Your task to perform on an android device: Set the phone to "Do not disturb". Image 0: 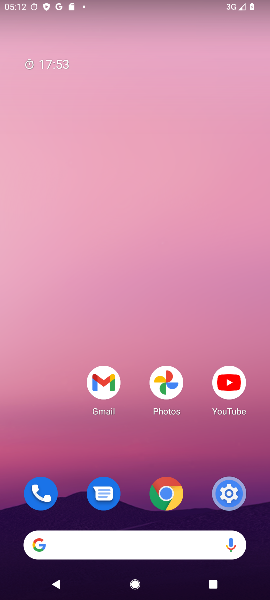
Step 0: press home button
Your task to perform on an android device: Set the phone to "Do not disturb". Image 1: 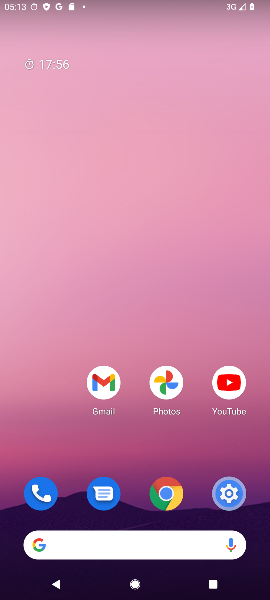
Step 1: drag from (49, 434) to (41, 149)
Your task to perform on an android device: Set the phone to "Do not disturb". Image 2: 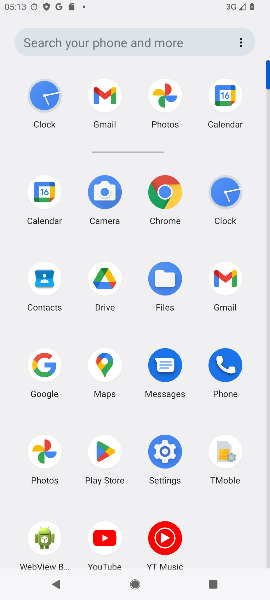
Step 2: click (162, 450)
Your task to perform on an android device: Set the phone to "Do not disturb". Image 3: 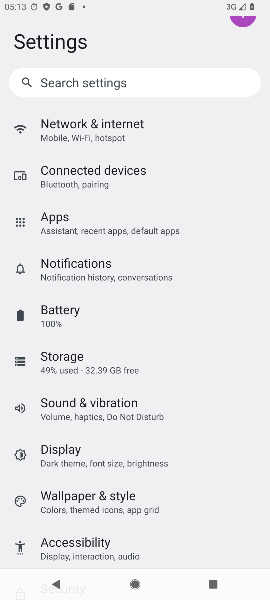
Step 3: drag from (219, 463) to (219, 375)
Your task to perform on an android device: Set the phone to "Do not disturb". Image 4: 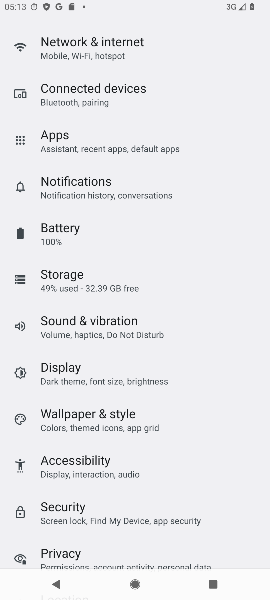
Step 4: drag from (236, 492) to (233, 378)
Your task to perform on an android device: Set the phone to "Do not disturb". Image 5: 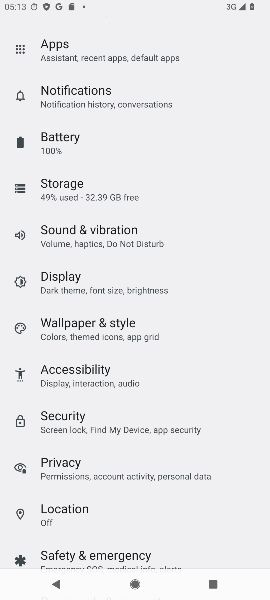
Step 5: drag from (230, 513) to (237, 385)
Your task to perform on an android device: Set the phone to "Do not disturb". Image 6: 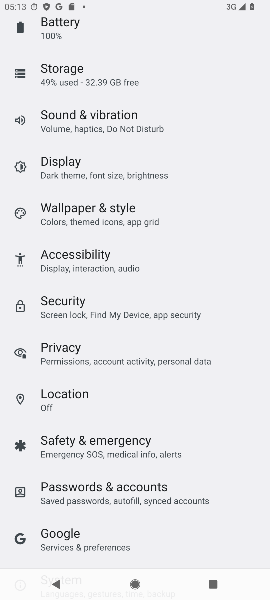
Step 6: drag from (230, 506) to (233, 365)
Your task to perform on an android device: Set the phone to "Do not disturb". Image 7: 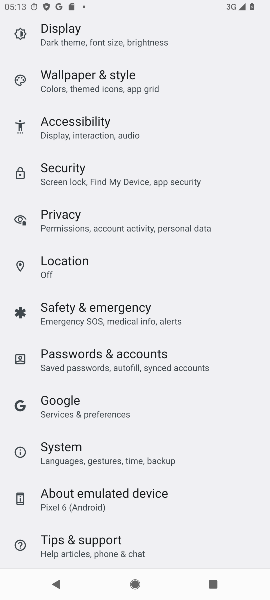
Step 7: drag from (233, 487) to (232, 359)
Your task to perform on an android device: Set the phone to "Do not disturb". Image 8: 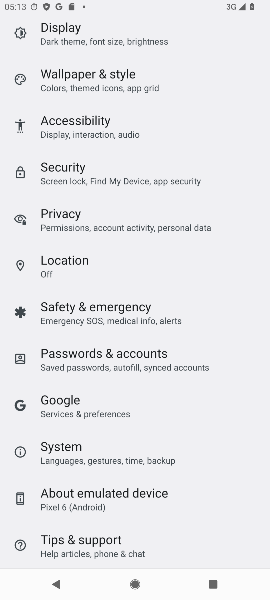
Step 8: drag from (236, 264) to (244, 348)
Your task to perform on an android device: Set the phone to "Do not disturb". Image 9: 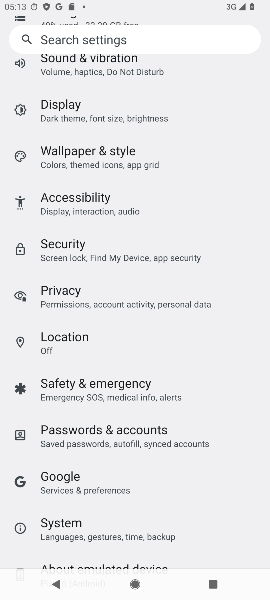
Step 9: drag from (229, 217) to (229, 339)
Your task to perform on an android device: Set the phone to "Do not disturb". Image 10: 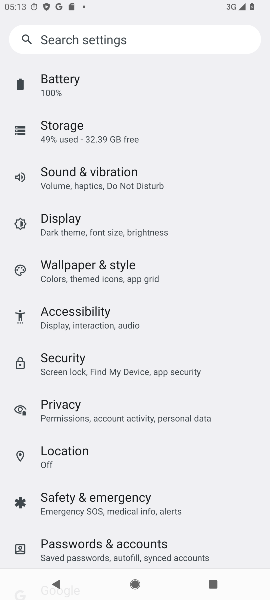
Step 10: drag from (229, 199) to (232, 266)
Your task to perform on an android device: Set the phone to "Do not disturb". Image 11: 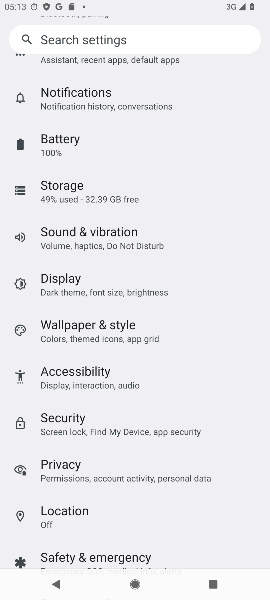
Step 11: drag from (231, 172) to (237, 362)
Your task to perform on an android device: Set the phone to "Do not disturb". Image 12: 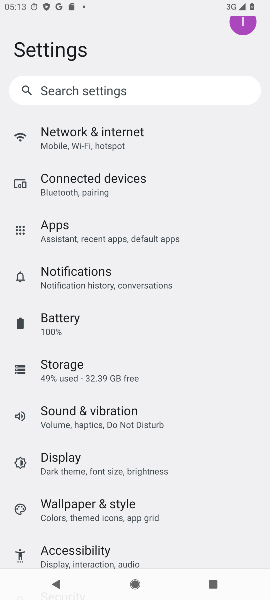
Step 12: click (188, 425)
Your task to perform on an android device: Set the phone to "Do not disturb". Image 13: 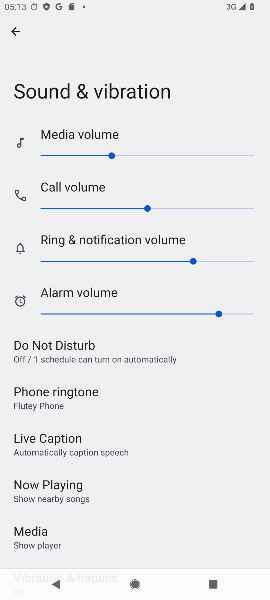
Step 13: click (96, 348)
Your task to perform on an android device: Set the phone to "Do not disturb". Image 14: 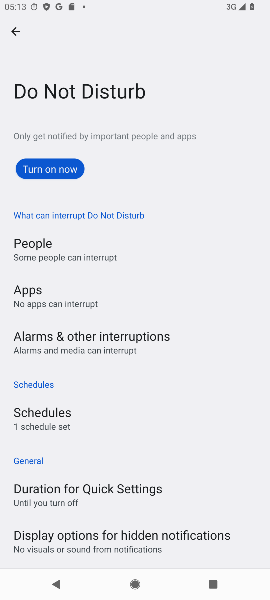
Step 14: click (62, 174)
Your task to perform on an android device: Set the phone to "Do not disturb". Image 15: 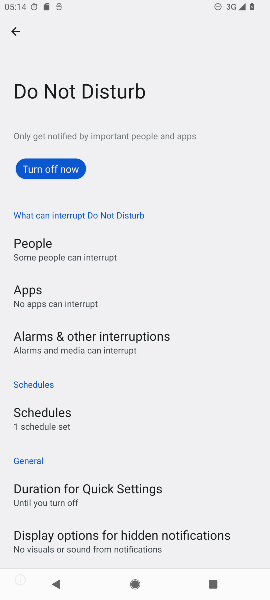
Step 15: task complete